Your task to perform on an android device: check google app version Image 0: 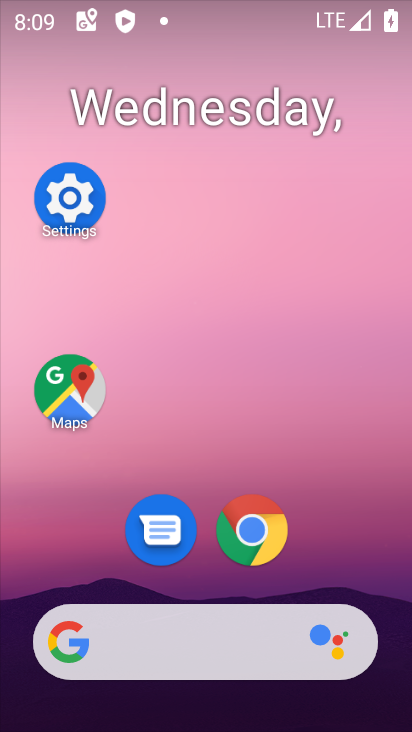
Step 0: drag from (330, 380) to (304, 104)
Your task to perform on an android device: check google app version Image 1: 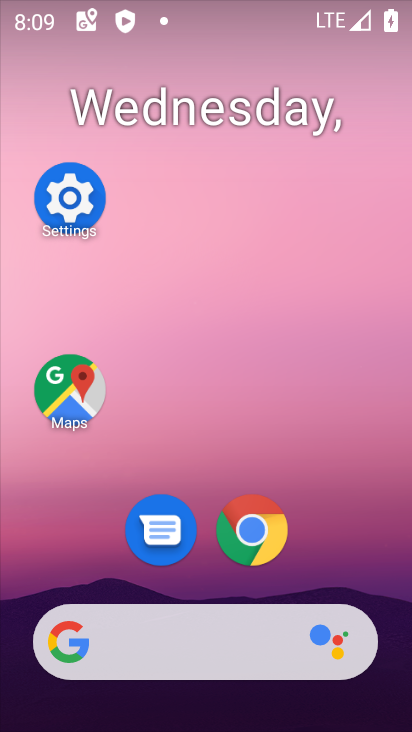
Step 1: drag from (320, 544) to (273, 66)
Your task to perform on an android device: check google app version Image 2: 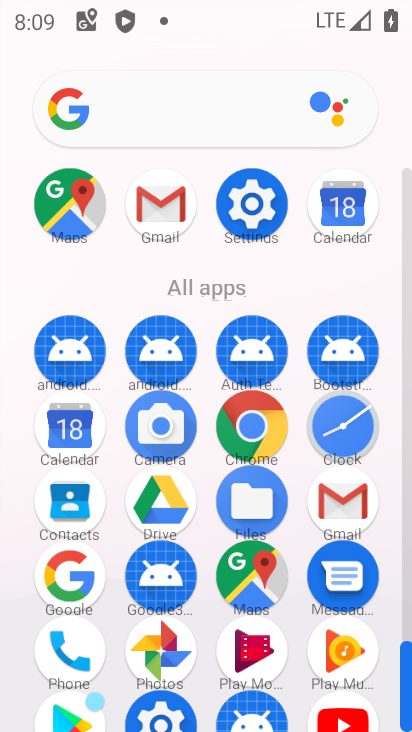
Step 2: drag from (72, 575) to (167, 336)
Your task to perform on an android device: check google app version Image 3: 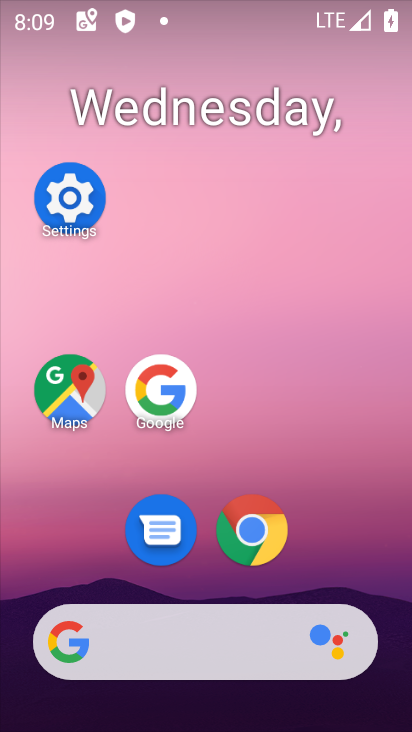
Step 3: click (164, 380)
Your task to perform on an android device: check google app version Image 4: 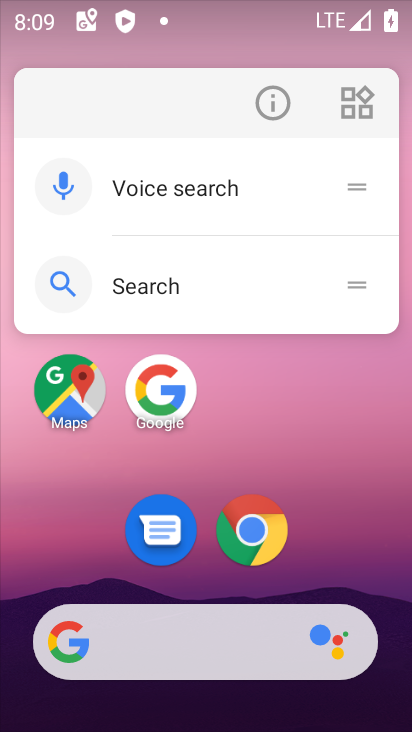
Step 4: click (278, 108)
Your task to perform on an android device: check google app version Image 5: 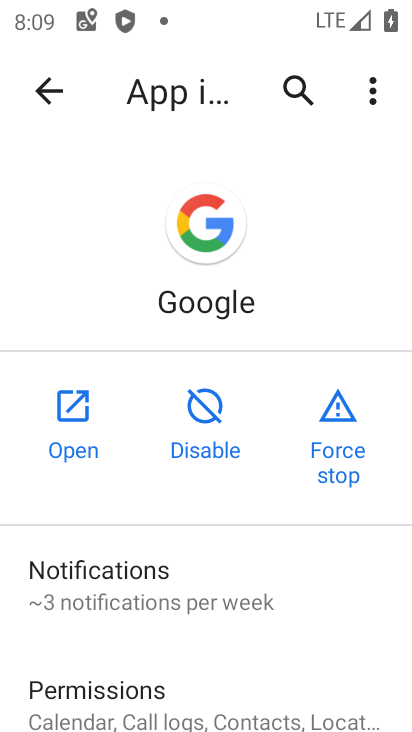
Step 5: drag from (225, 648) to (292, 175)
Your task to perform on an android device: check google app version Image 6: 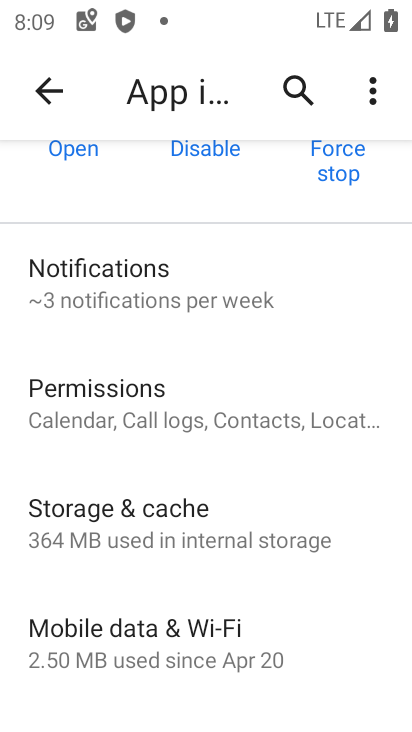
Step 6: drag from (249, 551) to (302, 94)
Your task to perform on an android device: check google app version Image 7: 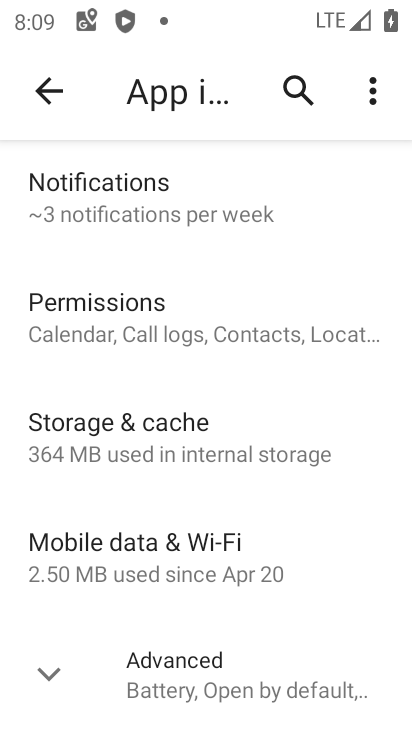
Step 7: click (179, 695)
Your task to perform on an android device: check google app version Image 8: 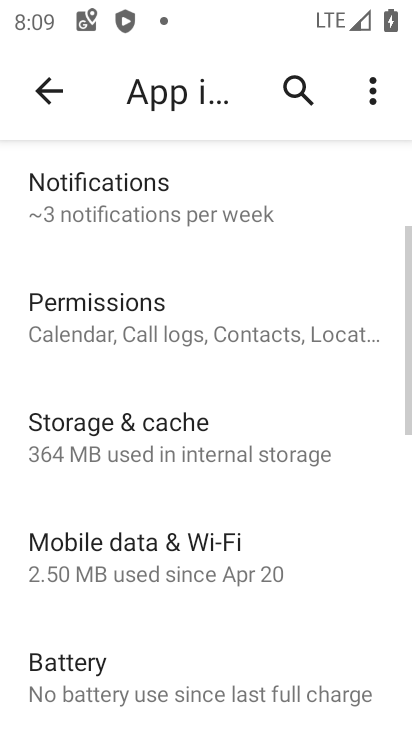
Step 8: task complete